Your task to perform on an android device: Turn on the flashlight Image 0: 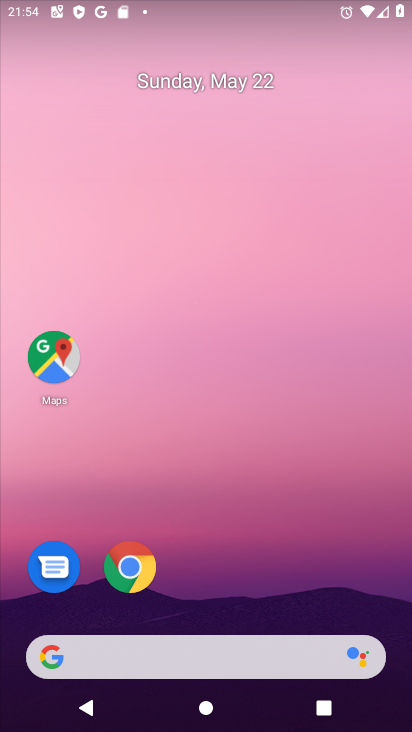
Step 0: drag from (226, 608) to (280, 46)
Your task to perform on an android device: Turn on the flashlight Image 1: 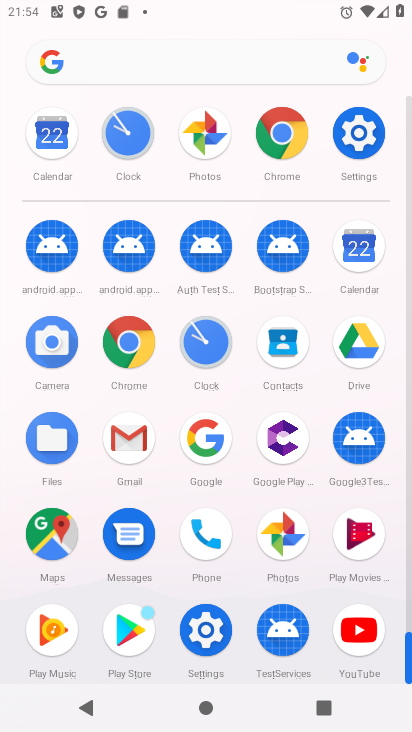
Step 1: click (364, 134)
Your task to perform on an android device: Turn on the flashlight Image 2: 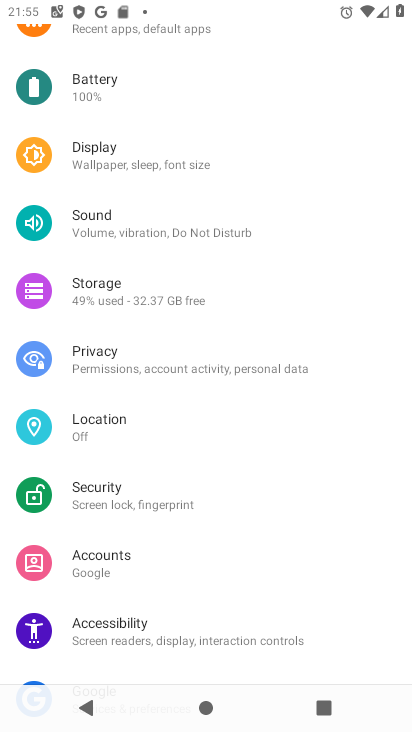
Step 2: drag from (243, 119) to (215, 683)
Your task to perform on an android device: Turn on the flashlight Image 3: 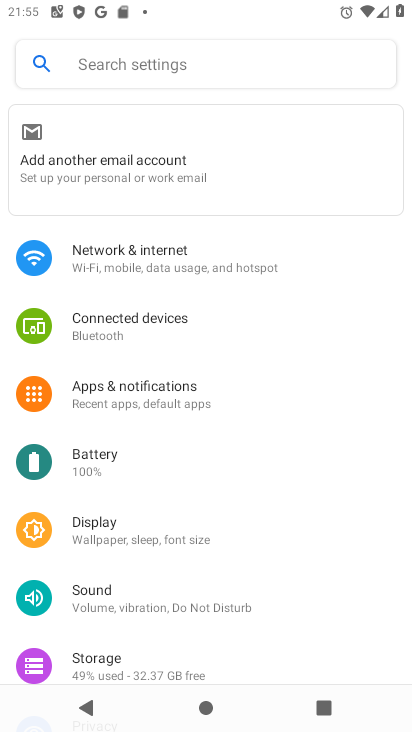
Step 3: click (218, 60)
Your task to perform on an android device: Turn on the flashlight Image 4: 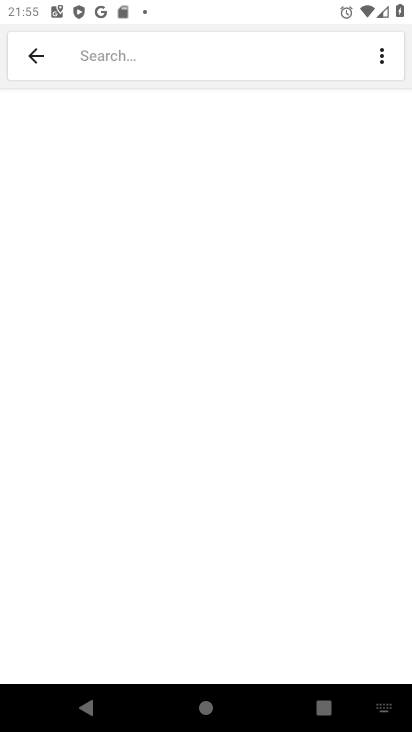
Step 4: type "flashlight"
Your task to perform on an android device: Turn on the flashlight Image 5: 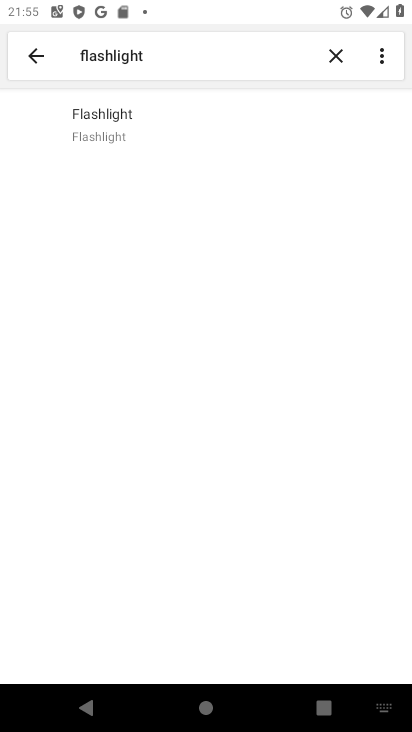
Step 5: click (139, 135)
Your task to perform on an android device: Turn on the flashlight Image 6: 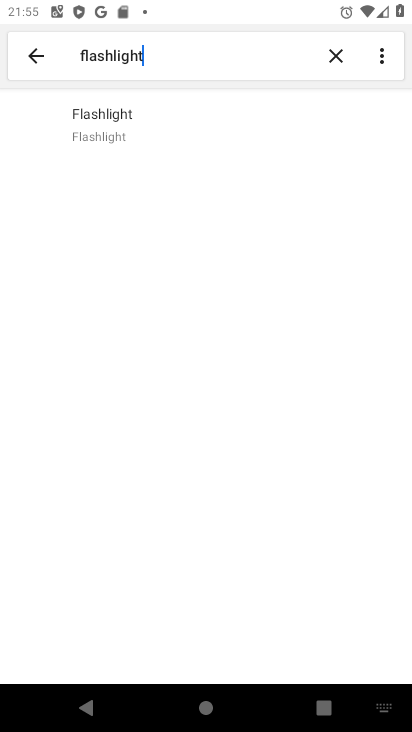
Step 6: click (99, 130)
Your task to perform on an android device: Turn on the flashlight Image 7: 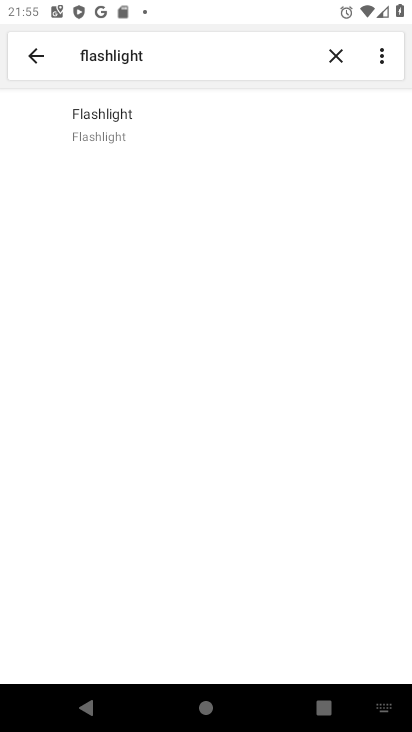
Step 7: task complete